Your task to perform on an android device: toggle data saver in the chrome app Image 0: 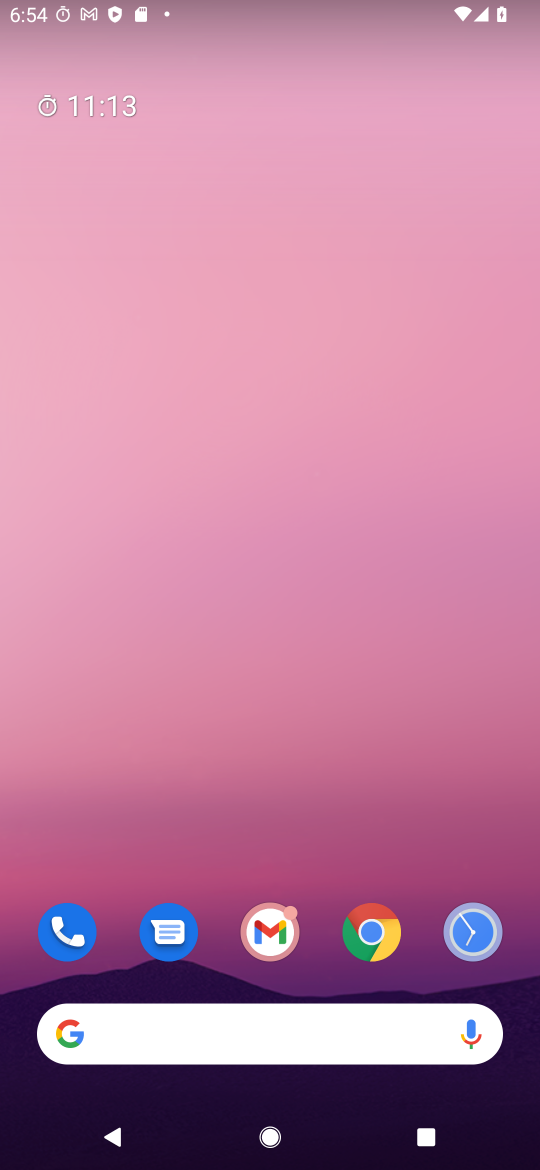
Step 0: drag from (316, 948) to (127, 1)
Your task to perform on an android device: toggle data saver in the chrome app Image 1: 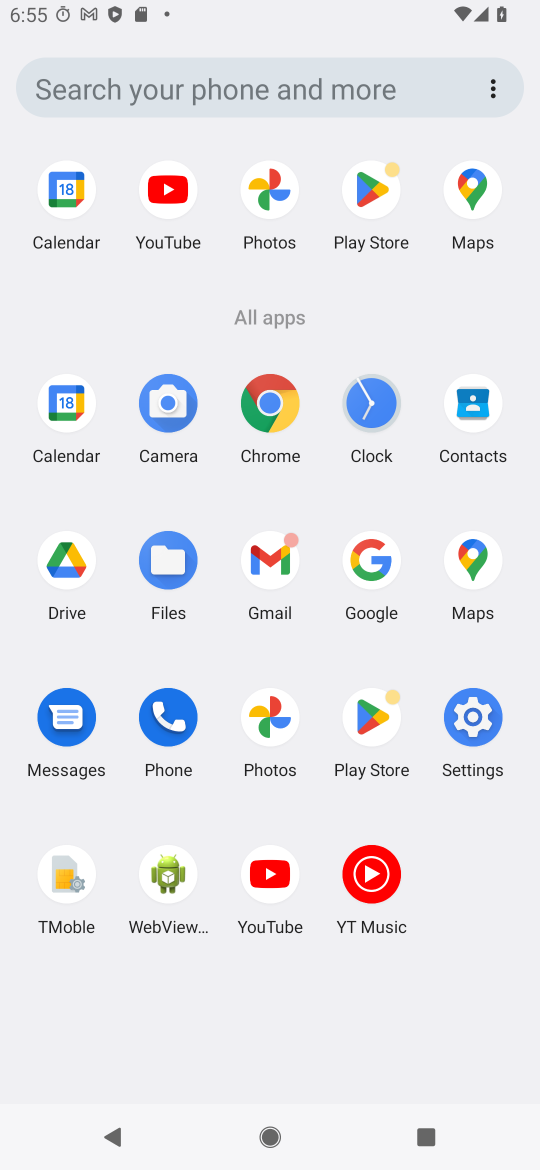
Step 1: click (267, 413)
Your task to perform on an android device: toggle data saver in the chrome app Image 2: 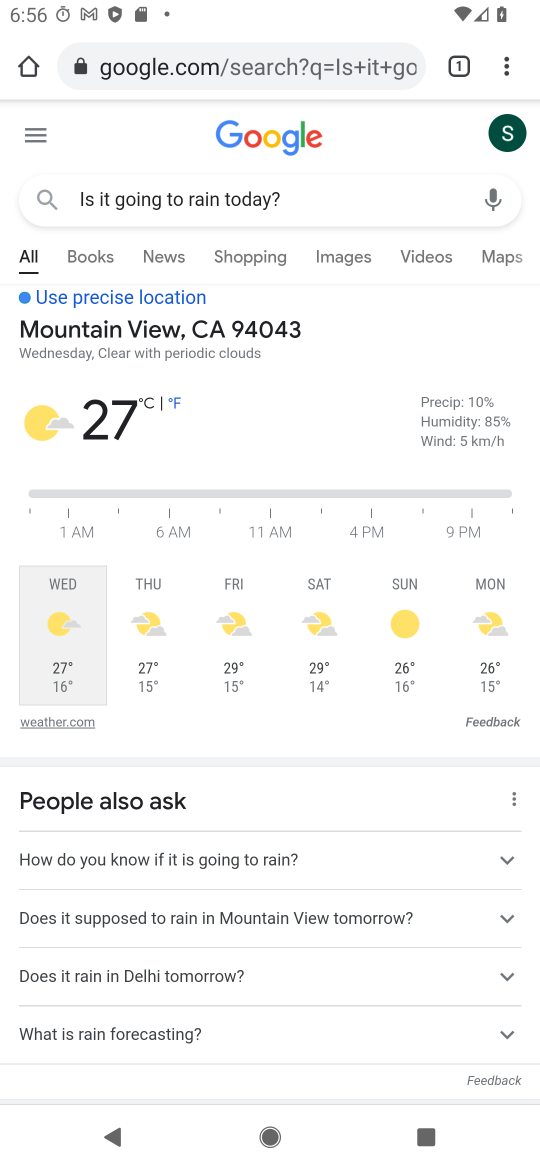
Step 2: click (506, 65)
Your task to perform on an android device: toggle data saver in the chrome app Image 3: 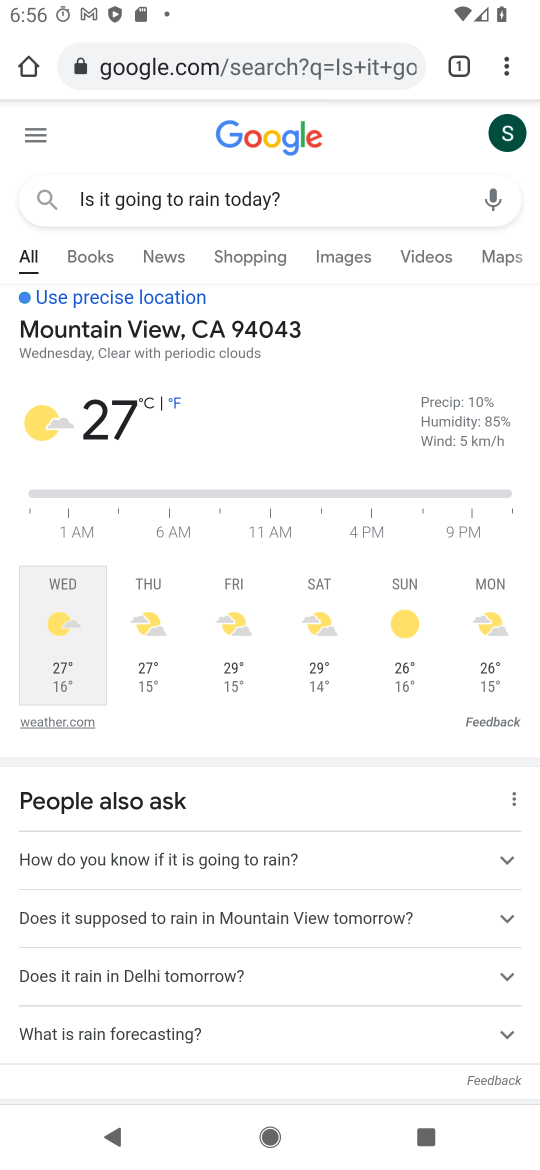
Step 3: drag from (504, 64) to (330, 874)
Your task to perform on an android device: toggle data saver in the chrome app Image 4: 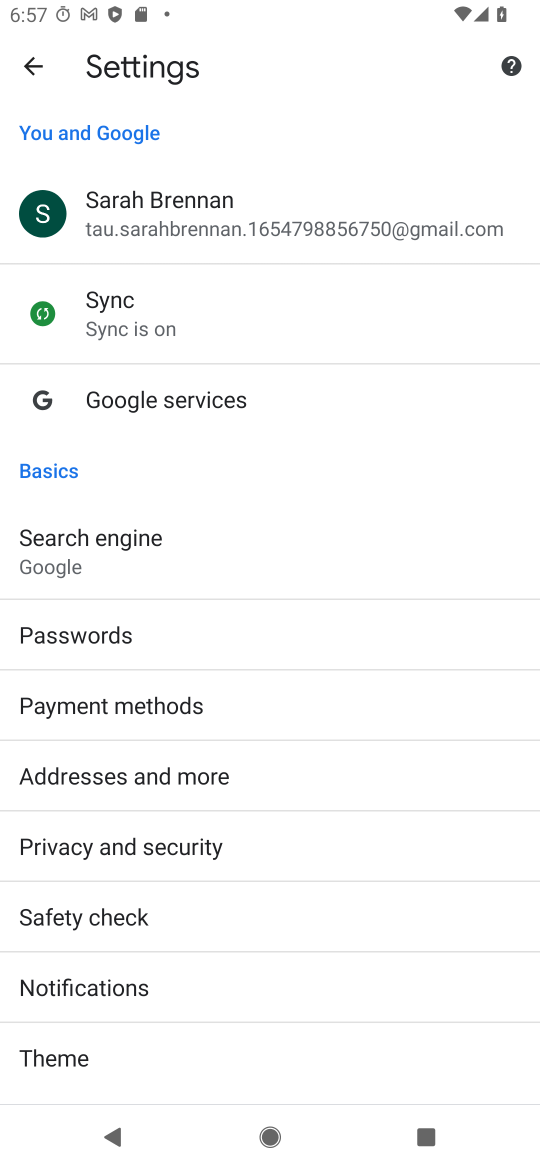
Step 4: drag from (215, 890) to (227, 28)
Your task to perform on an android device: toggle data saver in the chrome app Image 5: 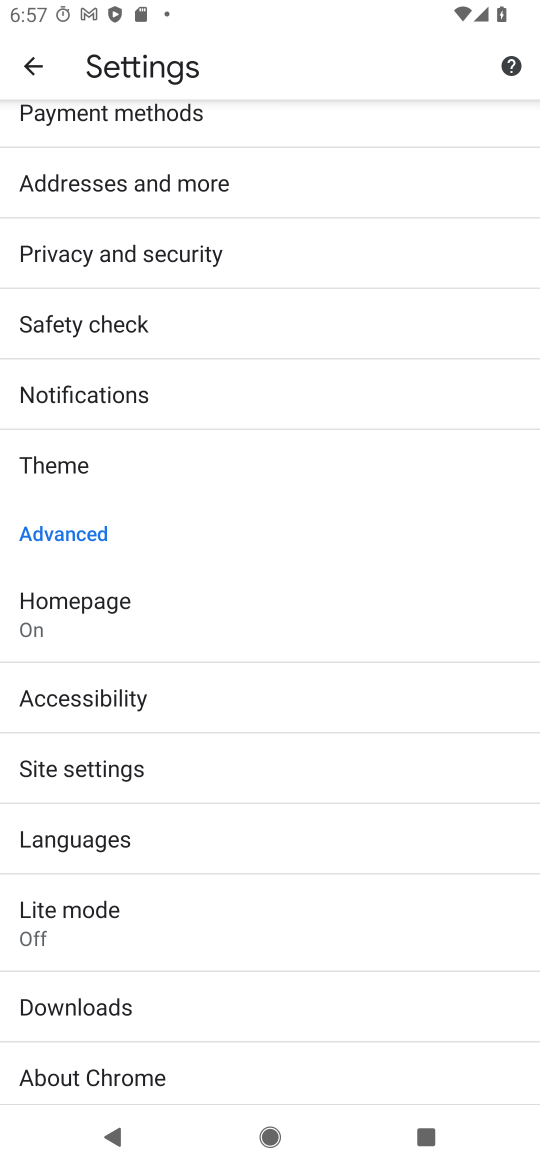
Step 5: click (76, 920)
Your task to perform on an android device: toggle data saver in the chrome app Image 6: 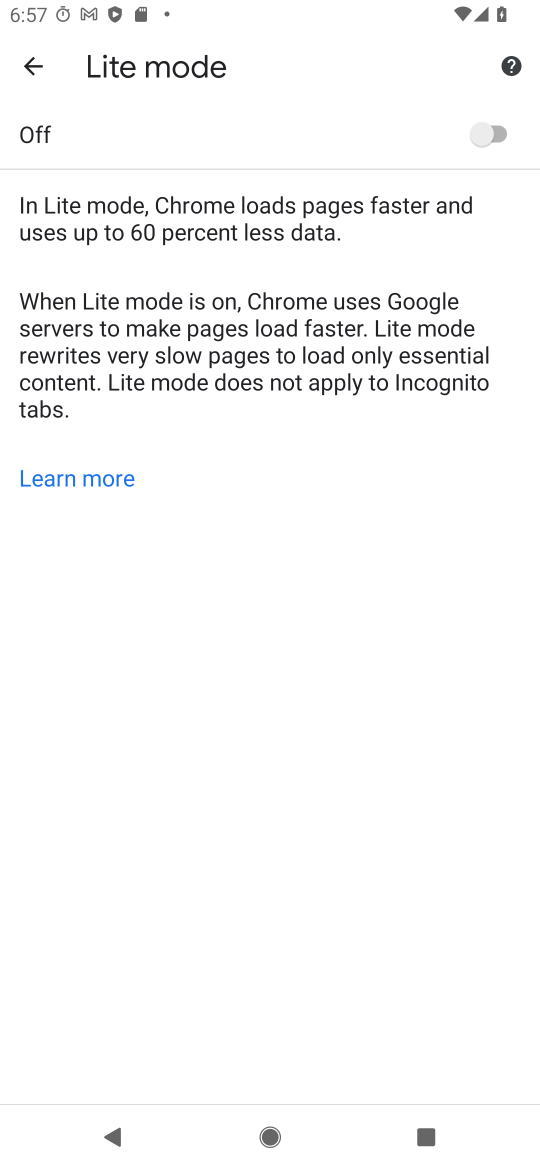
Step 6: click (372, 134)
Your task to perform on an android device: toggle data saver in the chrome app Image 7: 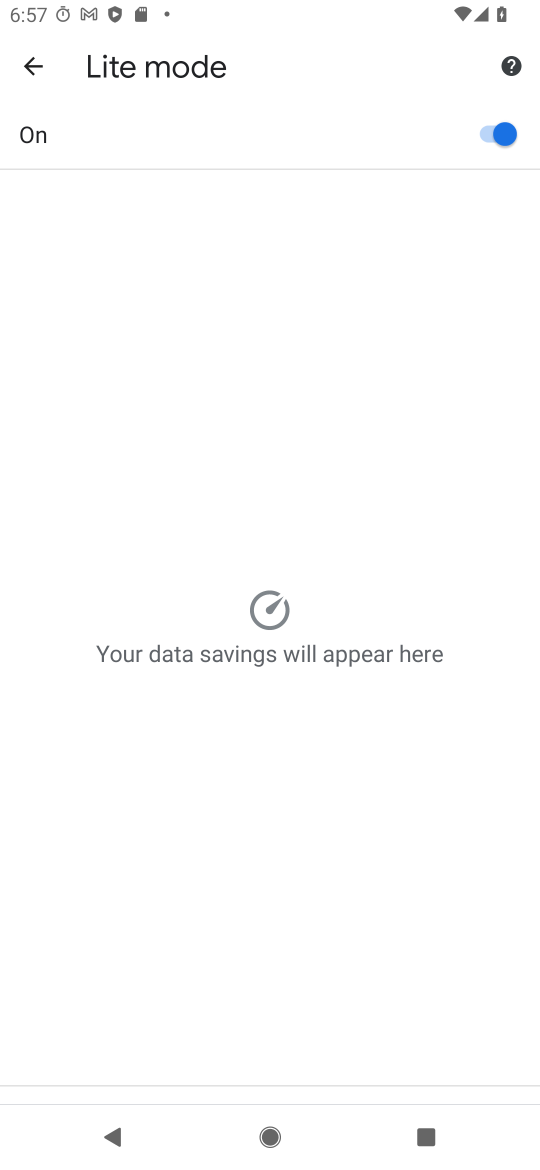
Step 7: task complete